Your task to perform on an android device: Go to CNN.com Image 0: 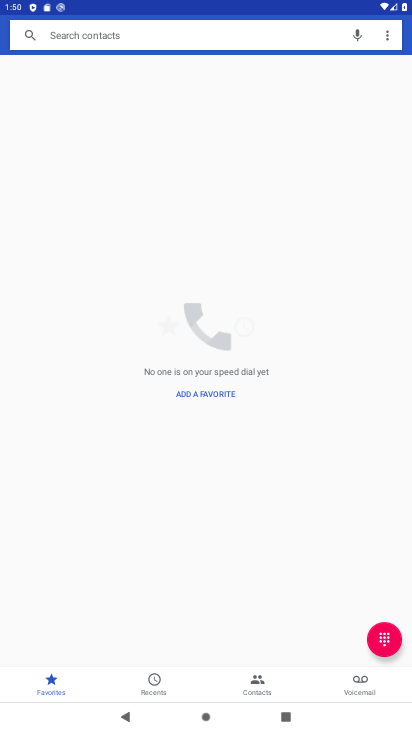
Step 0: press home button
Your task to perform on an android device: Go to CNN.com Image 1: 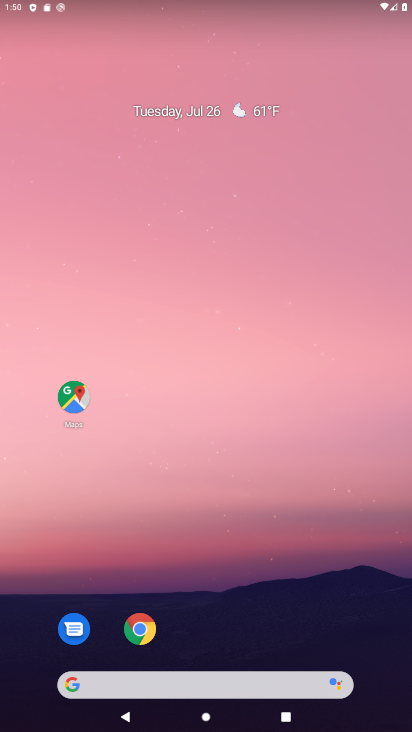
Step 1: click (136, 627)
Your task to perform on an android device: Go to CNN.com Image 2: 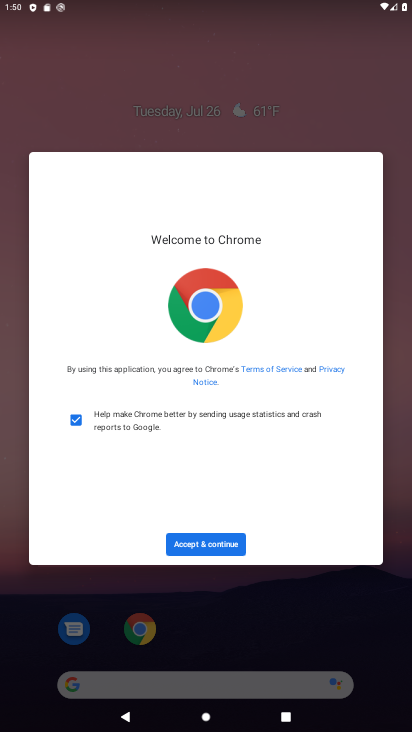
Step 2: click (210, 538)
Your task to perform on an android device: Go to CNN.com Image 3: 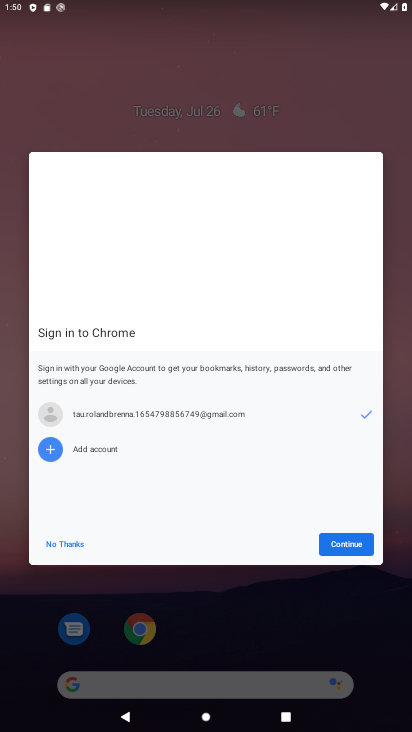
Step 3: click (342, 540)
Your task to perform on an android device: Go to CNN.com Image 4: 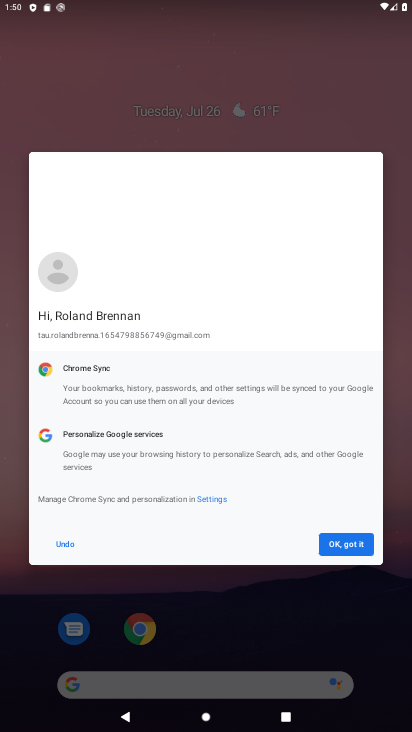
Step 4: click (330, 546)
Your task to perform on an android device: Go to CNN.com Image 5: 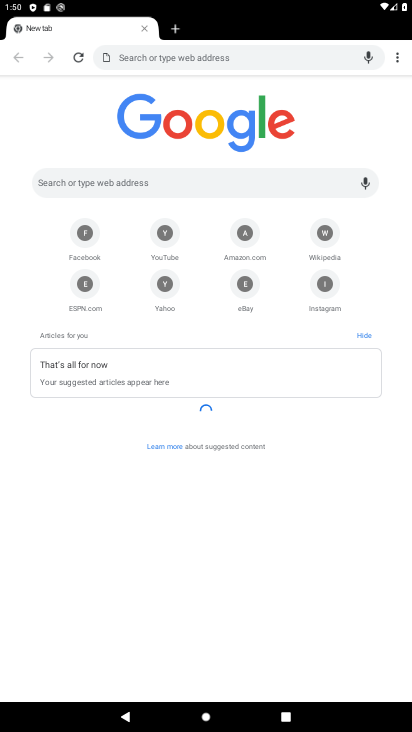
Step 5: click (179, 180)
Your task to perform on an android device: Go to CNN.com Image 6: 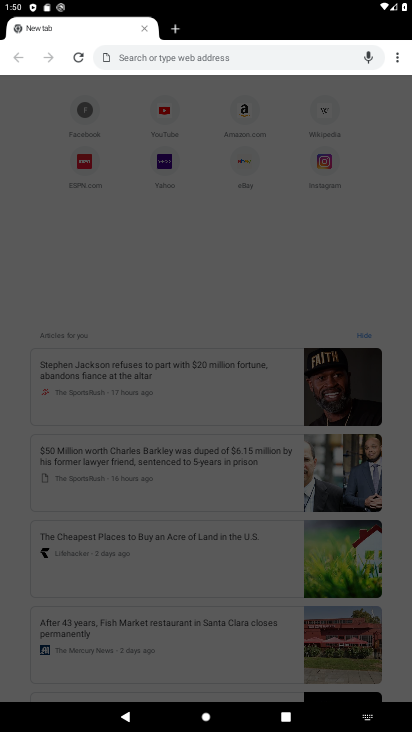
Step 6: type "cnn.com"
Your task to perform on an android device: Go to CNN.com Image 7: 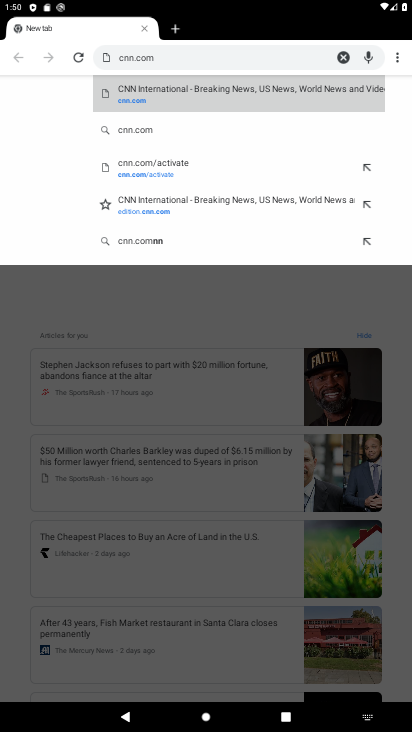
Step 7: click (133, 88)
Your task to perform on an android device: Go to CNN.com Image 8: 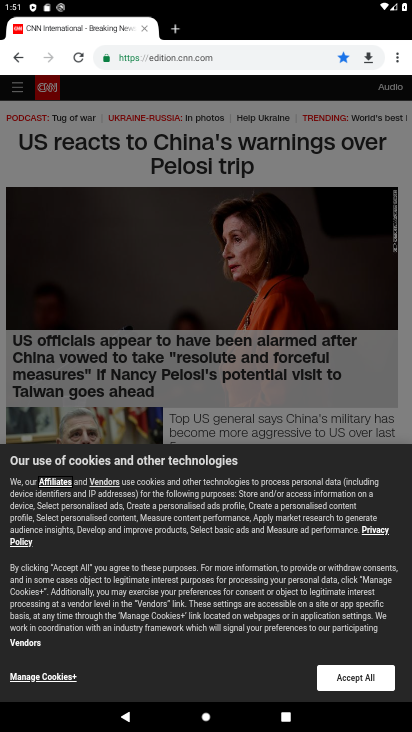
Step 8: task complete